Your task to perform on an android device: remove spam from my inbox in the gmail app Image 0: 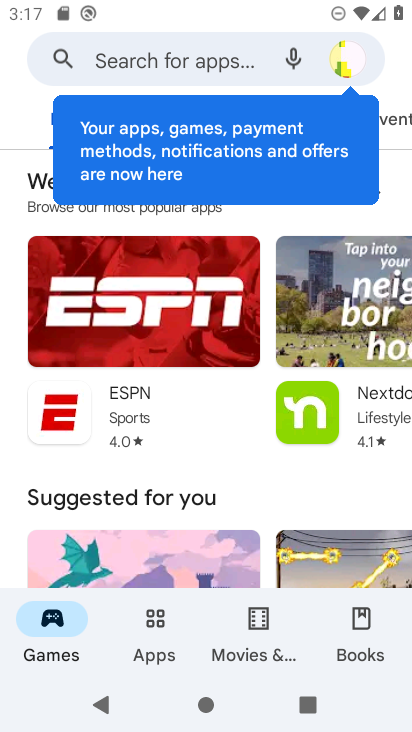
Step 0: press home button
Your task to perform on an android device: remove spam from my inbox in the gmail app Image 1: 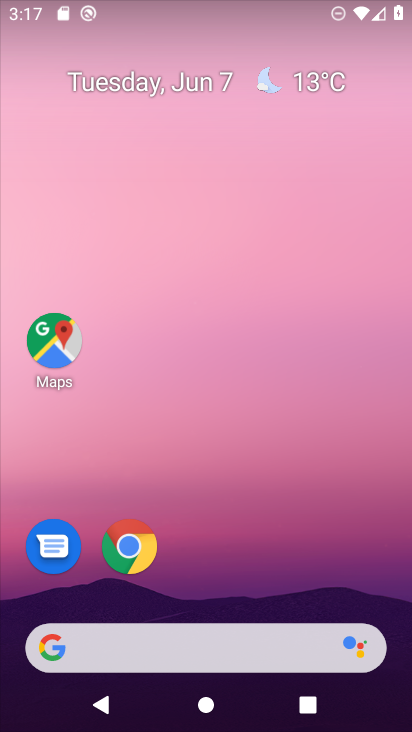
Step 1: drag from (39, 461) to (201, 189)
Your task to perform on an android device: remove spam from my inbox in the gmail app Image 2: 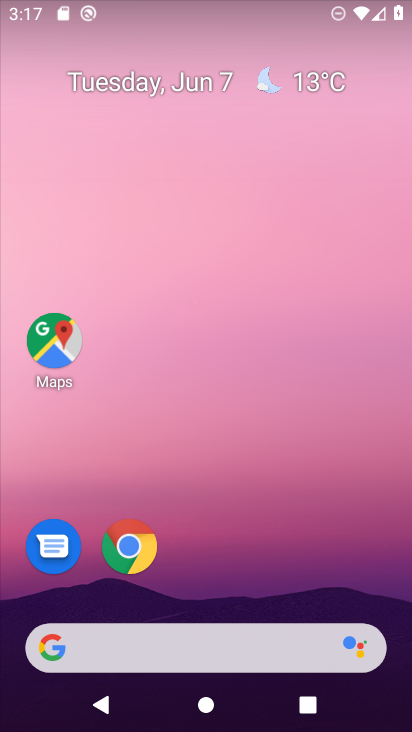
Step 2: drag from (15, 575) to (216, 147)
Your task to perform on an android device: remove spam from my inbox in the gmail app Image 3: 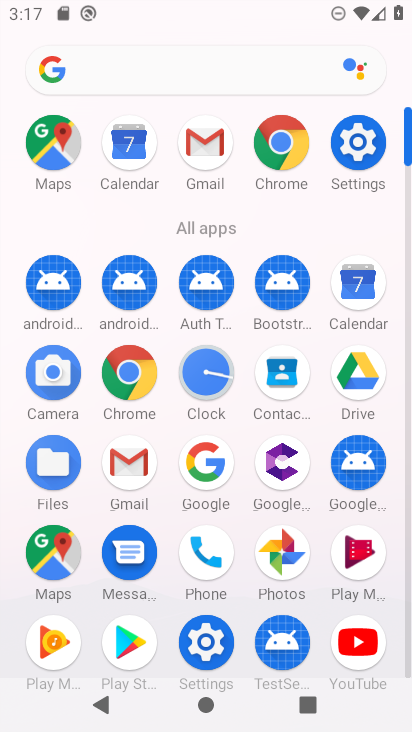
Step 3: click (203, 144)
Your task to perform on an android device: remove spam from my inbox in the gmail app Image 4: 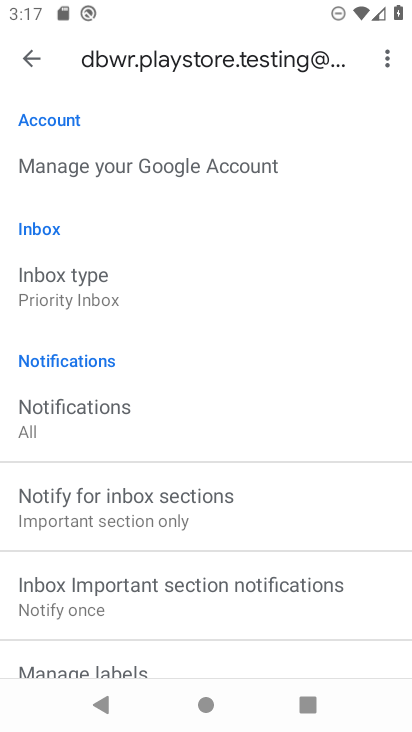
Step 4: click (39, 55)
Your task to perform on an android device: remove spam from my inbox in the gmail app Image 5: 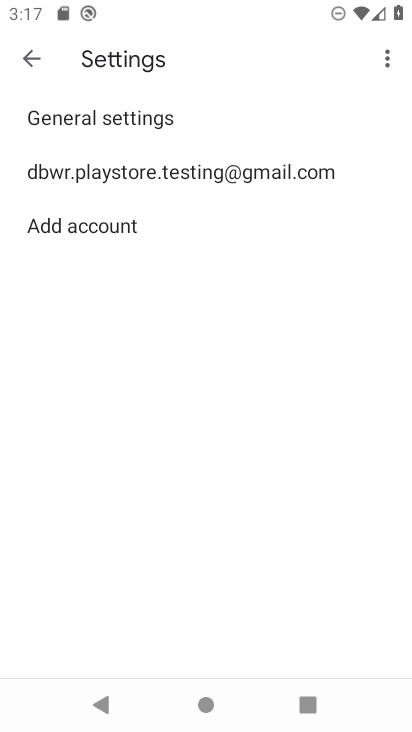
Step 5: click (39, 55)
Your task to perform on an android device: remove spam from my inbox in the gmail app Image 6: 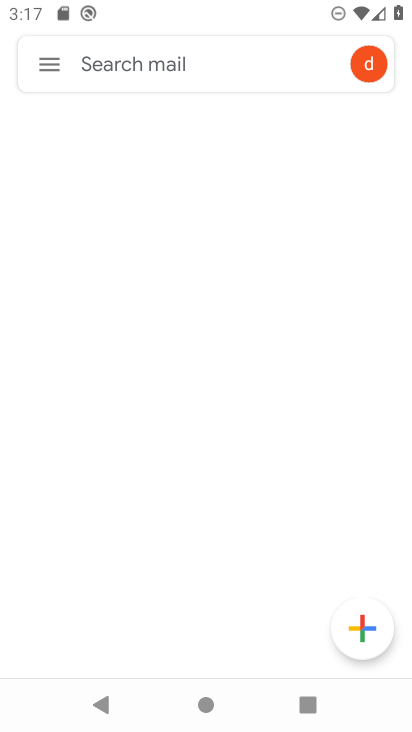
Step 6: click (50, 62)
Your task to perform on an android device: remove spam from my inbox in the gmail app Image 7: 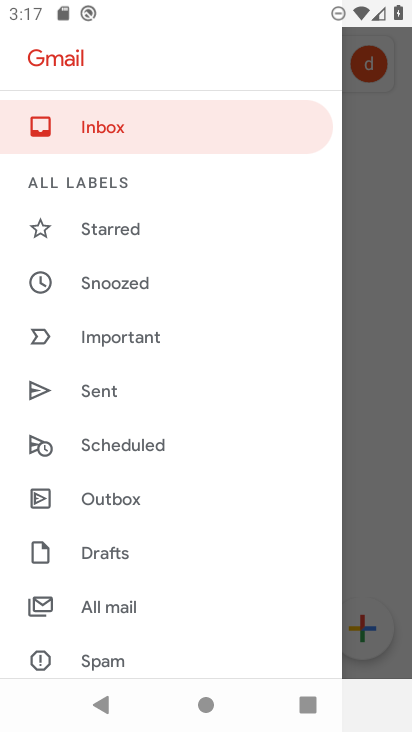
Step 7: click (114, 654)
Your task to perform on an android device: remove spam from my inbox in the gmail app Image 8: 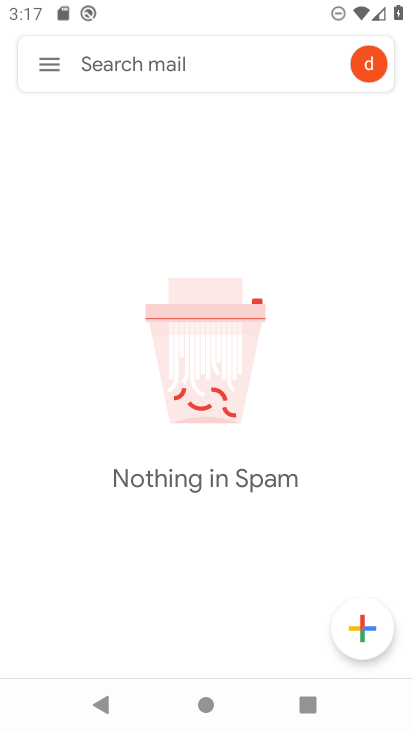
Step 8: task complete